Your task to perform on an android device: turn off data saver in the chrome app Image 0: 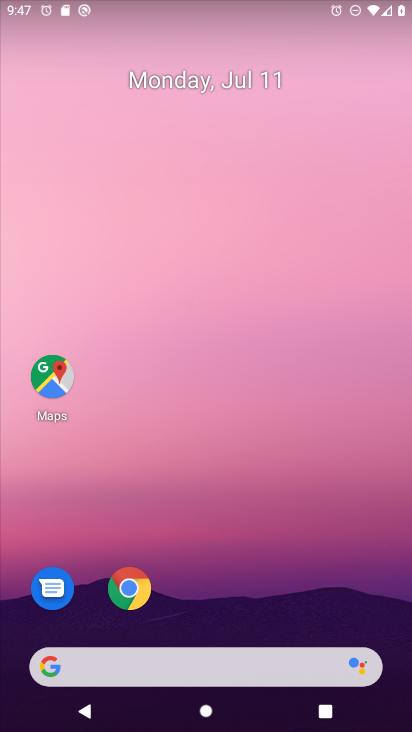
Step 0: drag from (227, 639) to (389, 33)
Your task to perform on an android device: turn off data saver in the chrome app Image 1: 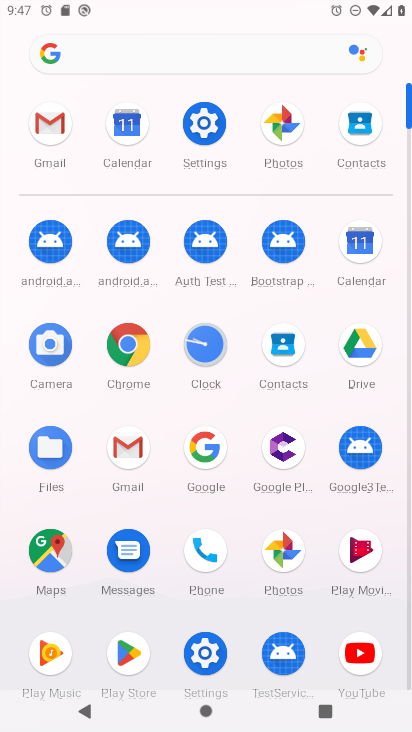
Step 1: click (135, 346)
Your task to perform on an android device: turn off data saver in the chrome app Image 2: 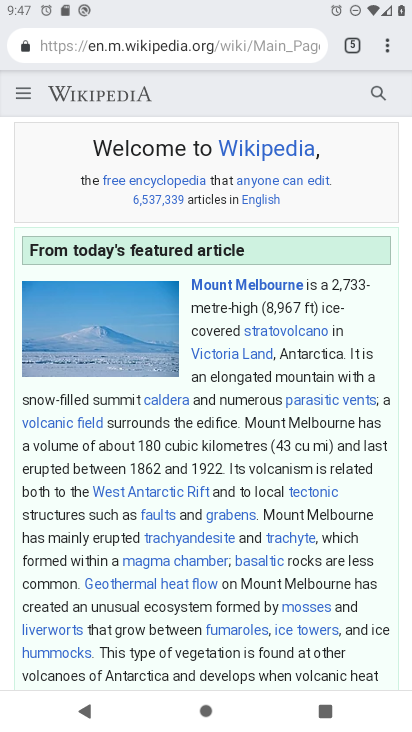
Step 2: drag from (387, 47) to (234, 604)
Your task to perform on an android device: turn off data saver in the chrome app Image 3: 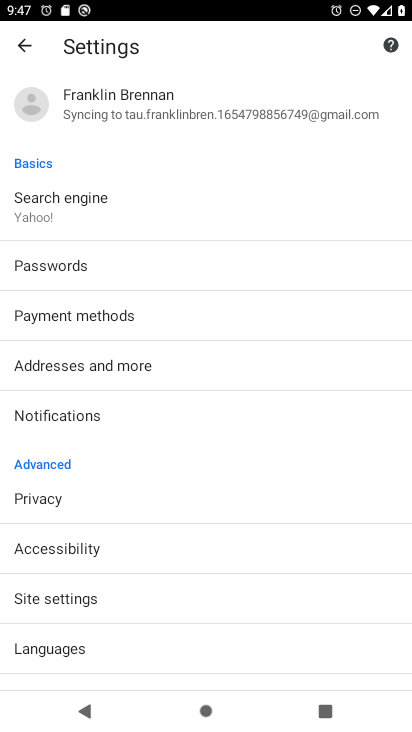
Step 3: drag from (144, 629) to (272, 293)
Your task to perform on an android device: turn off data saver in the chrome app Image 4: 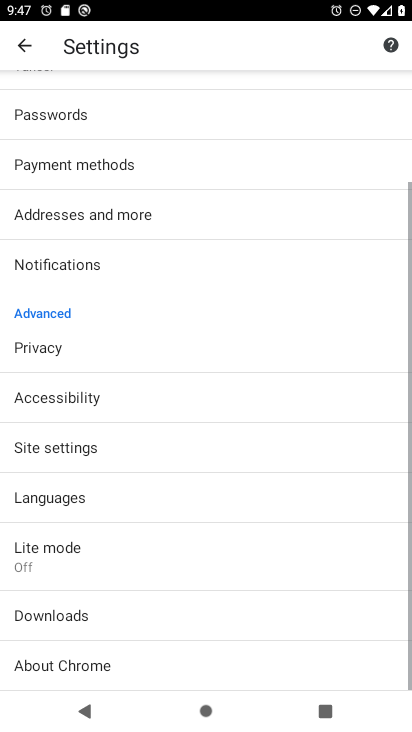
Step 4: click (71, 549)
Your task to perform on an android device: turn off data saver in the chrome app Image 5: 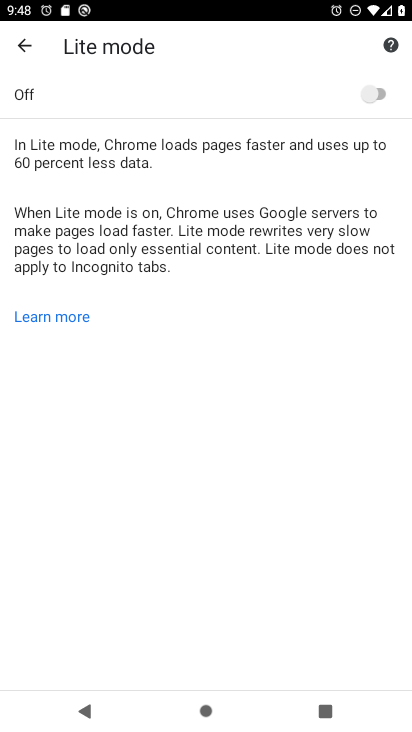
Step 5: task complete